Your task to perform on an android device: Go to calendar. Show me events next week Image 0: 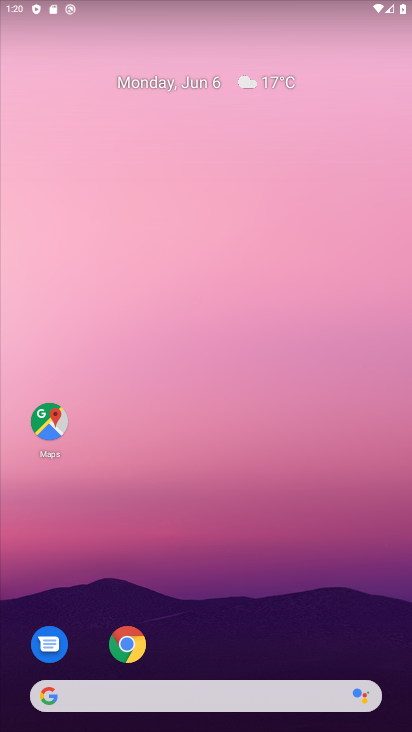
Step 0: drag from (263, 581) to (278, 170)
Your task to perform on an android device: Go to calendar. Show me events next week Image 1: 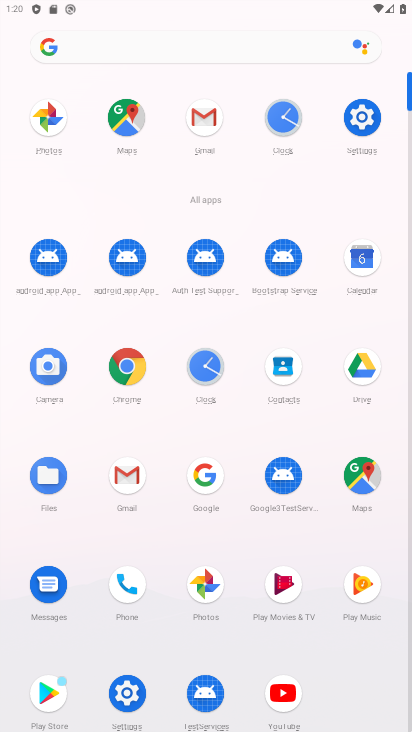
Step 1: click (363, 288)
Your task to perform on an android device: Go to calendar. Show me events next week Image 2: 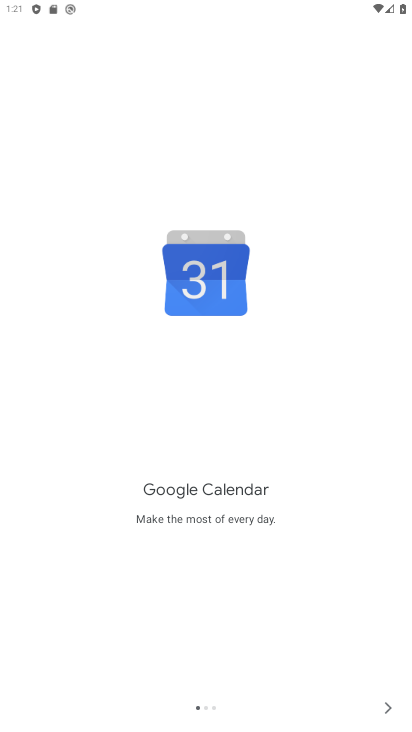
Step 2: click (390, 713)
Your task to perform on an android device: Go to calendar. Show me events next week Image 3: 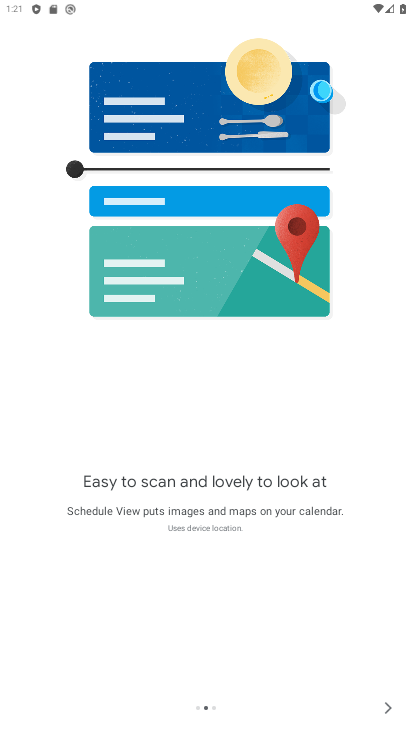
Step 3: click (390, 713)
Your task to perform on an android device: Go to calendar. Show me events next week Image 4: 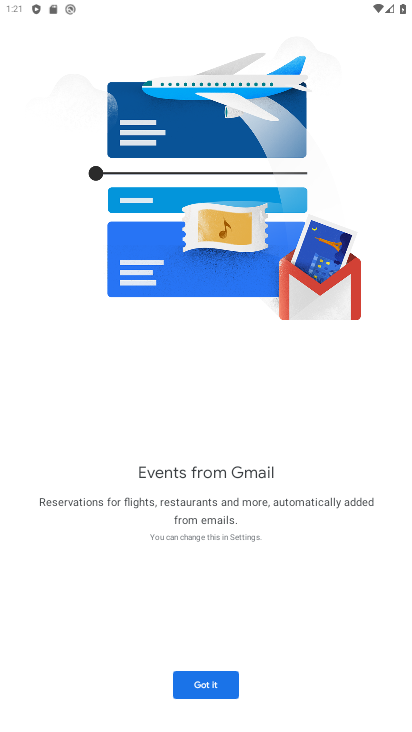
Step 4: click (204, 686)
Your task to perform on an android device: Go to calendar. Show me events next week Image 5: 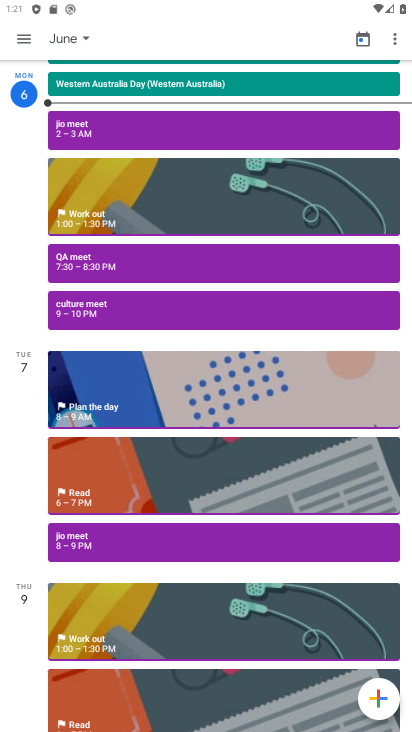
Step 5: click (72, 37)
Your task to perform on an android device: Go to calendar. Show me events next week Image 6: 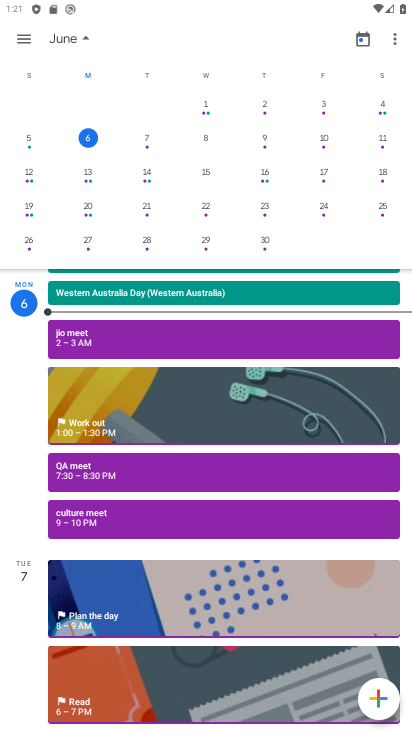
Step 6: click (30, 175)
Your task to perform on an android device: Go to calendar. Show me events next week Image 7: 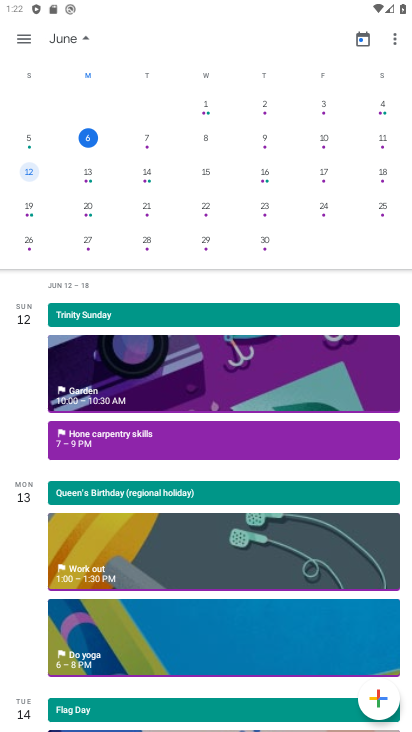
Step 7: task complete